Your task to perform on an android device: Open display settings Image 0: 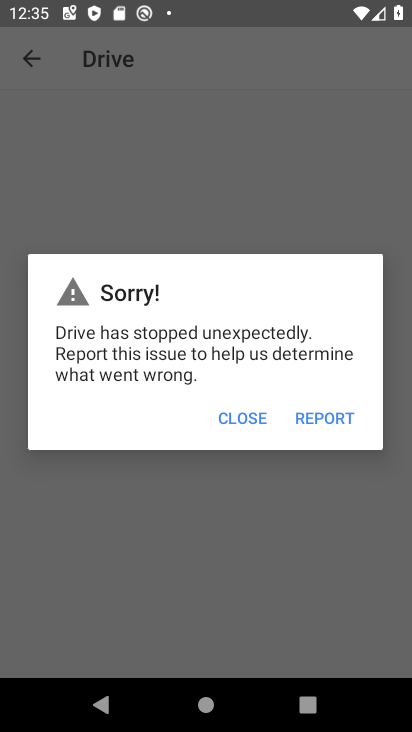
Step 0: press home button
Your task to perform on an android device: Open display settings Image 1: 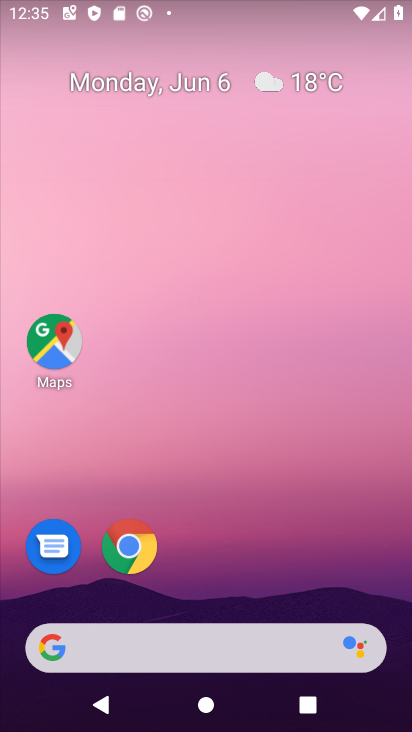
Step 1: drag from (320, 547) to (343, 110)
Your task to perform on an android device: Open display settings Image 2: 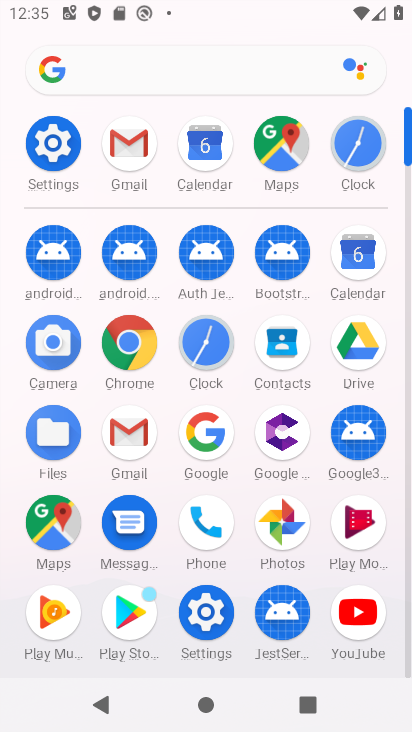
Step 2: click (67, 161)
Your task to perform on an android device: Open display settings Image 3: 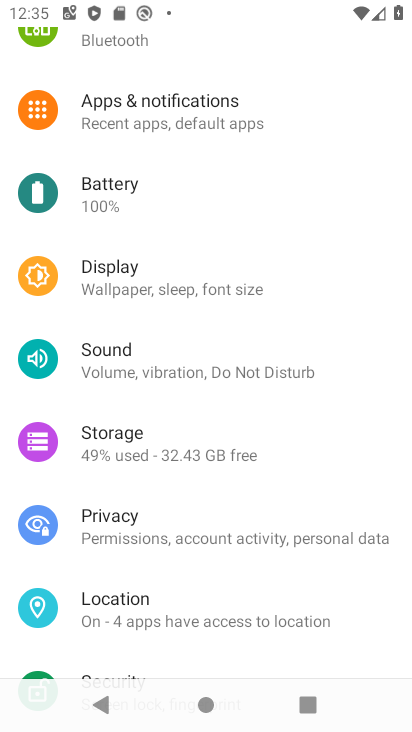
Step 3: click (135, 276)
Your task to perform on an android device: Open display settings Image 4: 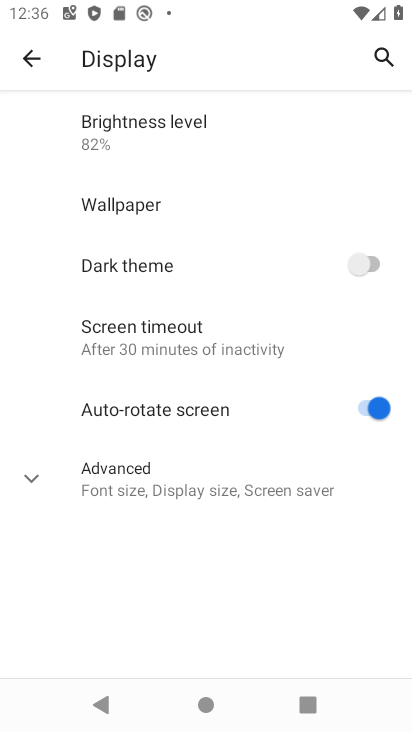
Step 4: task complete